Your task to perform on an android device: What is the recent news? Image 0: 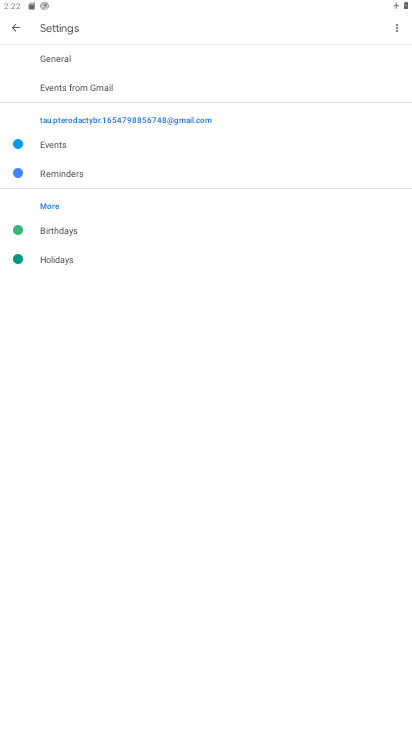
Step 0: press home button
Your task to perform on an android device: What is the recent news? Image 1: 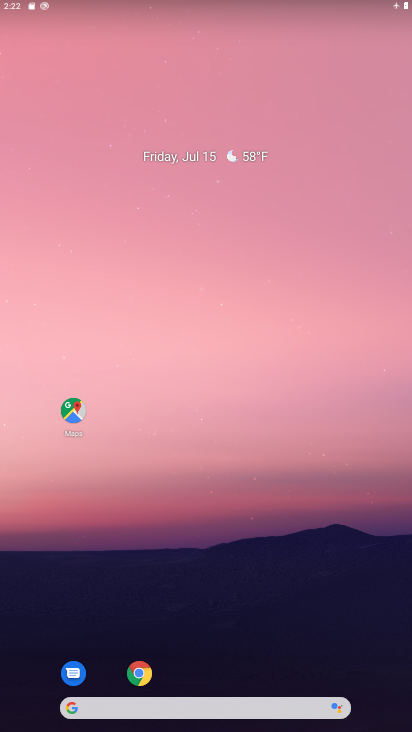
Step 1: drag from (386, 699) to (338, 119)
Your task to perform on an android device: What is the recent news? Image 2: 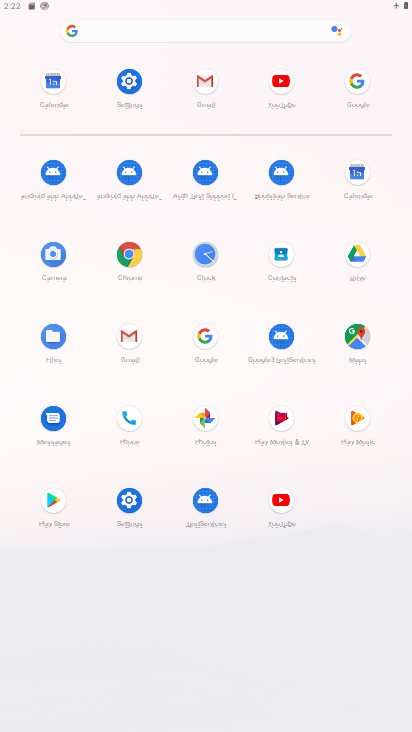
Step 2: click (204, 333)
Your task to perform on an android device: What is the recent news? Image 3: 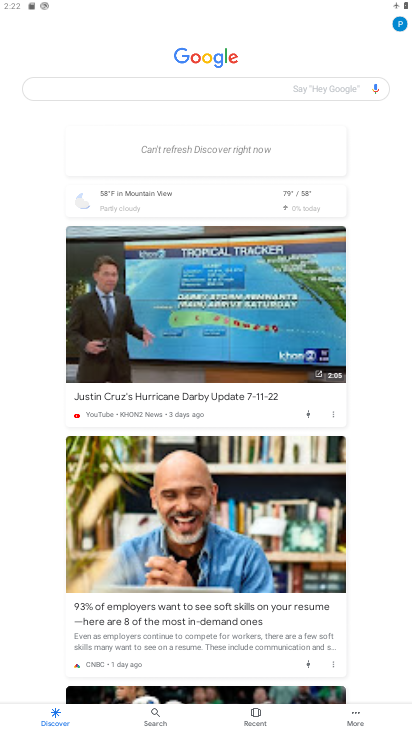
Step 3: task complete